Your task to perform on an android device: star an email in the gmail app Image 0: 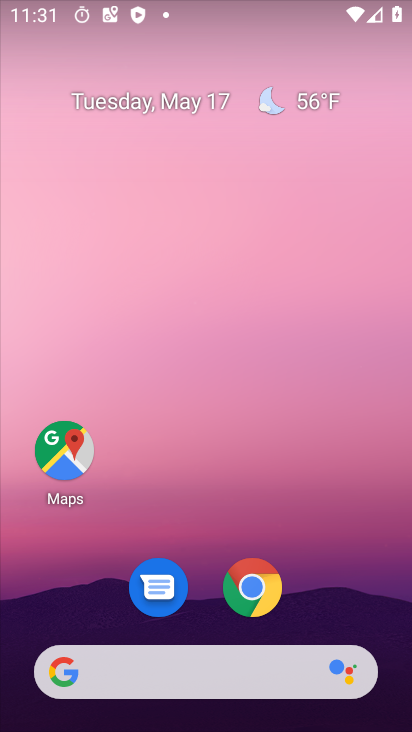
Step 0: drag from (347, 586) to (225, 140)
Your task to perform on an android device: star an email in the gmail app Image 1: 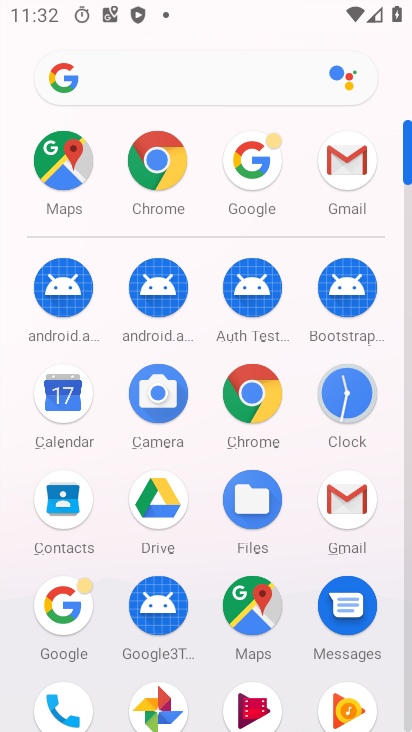
Step 1: click (346, 160)
Your task to perform on an android device: star an email in the gmail app Image 2: 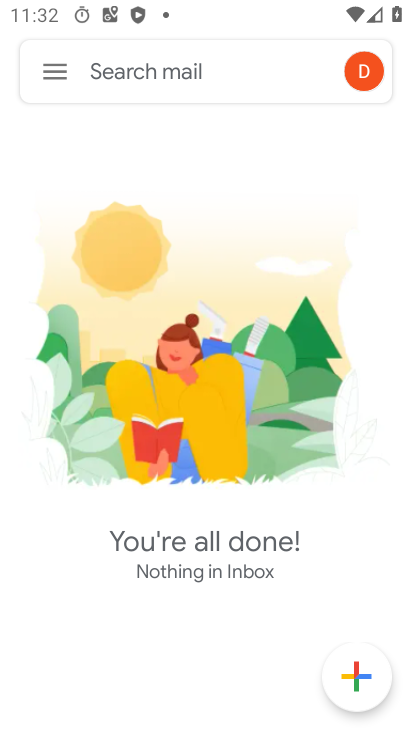
Step 2: click (55, 86)
Your task to perform on an android device: star an email in the gmail app Image 3: 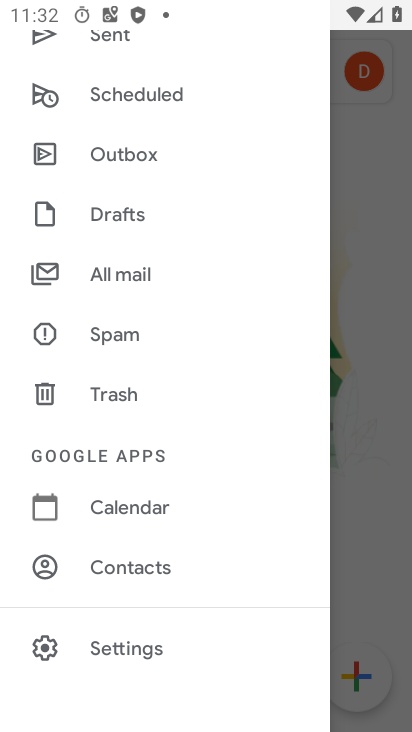
Step 3: drag from (142, 331) to (152, 458)
Your task to perform on an android device: star an email in the gmail app Image 4: 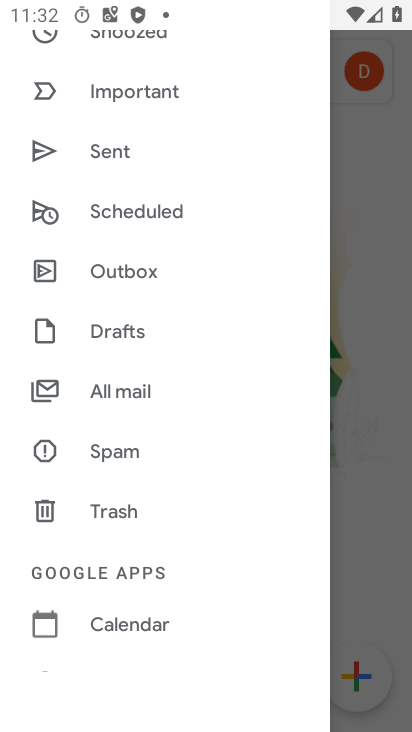
Step 4: drag from (118, 238) to (190, 531)
Your task to perform on an android device: star an email in the gmail app Image 5: 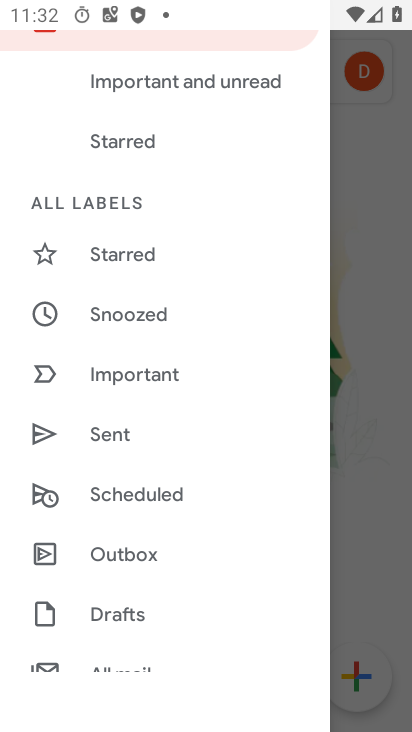
Step 5: click (144, 257)
Your task to perform on an android device: star an email in the gmail app Image 6: 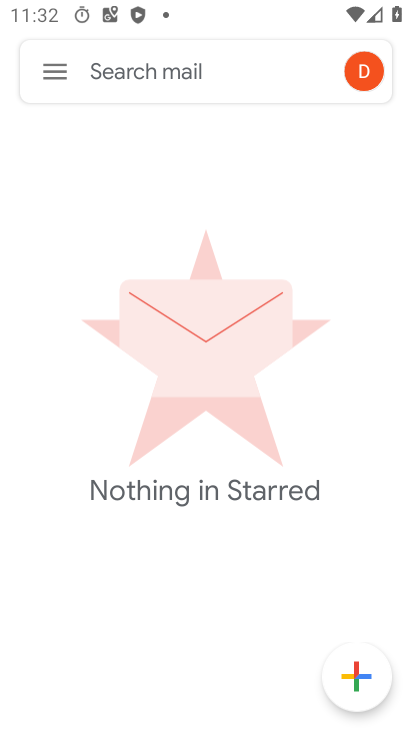
Step 6: click (48, 74)
Your task to perform on an android device: star an email in the gmail app Image 7: 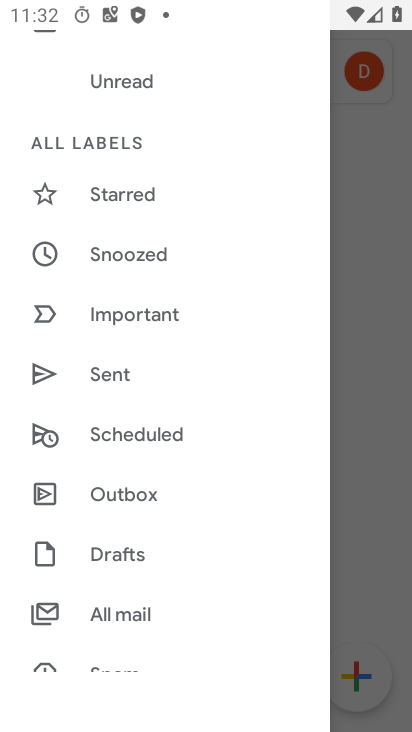
Step 7: drag from (169, 199) to (172, 441)
Your task to perform on an android device: star an email in the gmail app Image 8: 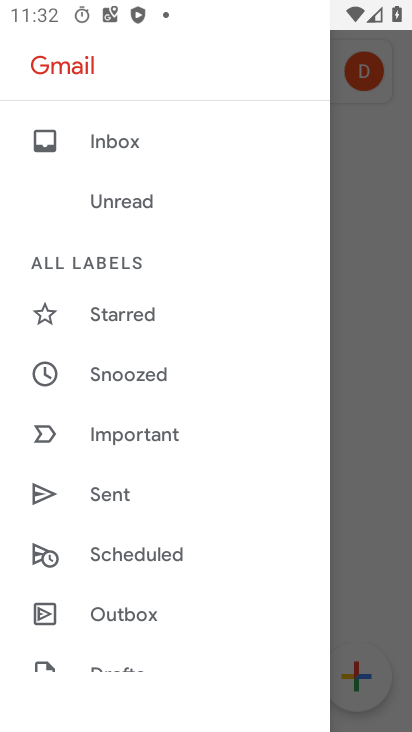
Step 8: click (120, 430)
Your task to perform on an android device: star an email in the gmail app Image 9: 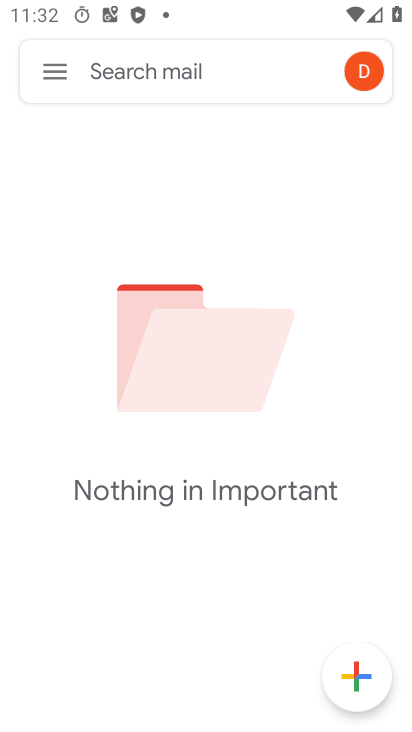
Step 9: task complete